Your task to perform on an android device: open wifi settings Image 0: 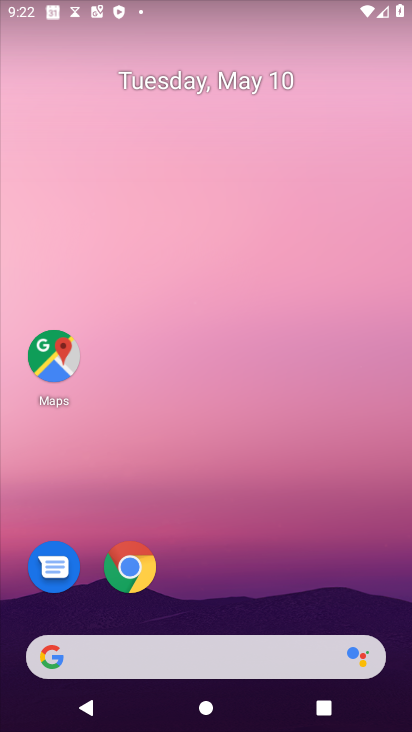
Step 0: press home button
Your task to perform on an android device: open wifi settings Image 1: 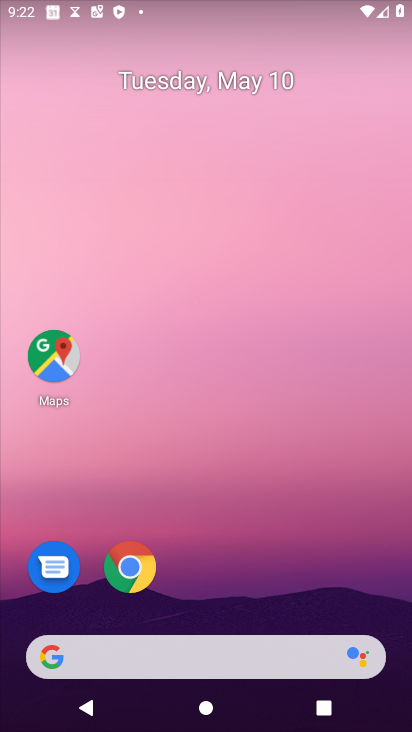
Step 1: drag from (15, 627) to (211, 100)
Your task to perform on an android device: open wifi settings Image 2: 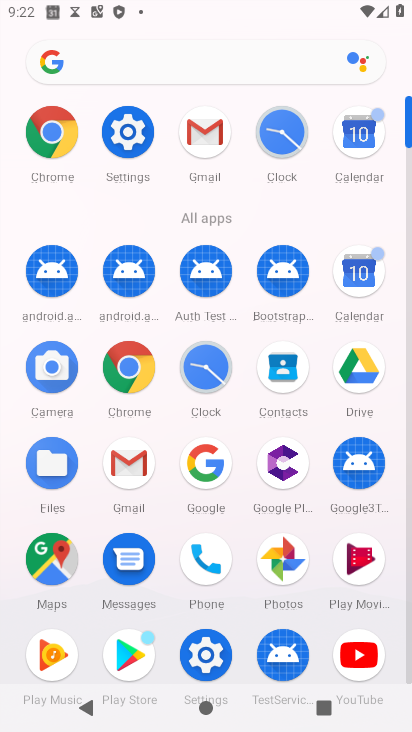
Step 2: click (132, 135)
Your task to perform on an android device: open wifi settings Image 3: 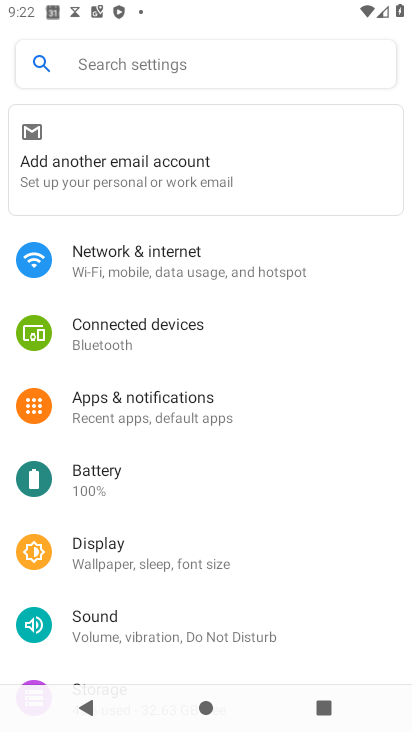
Step 3: click (117, 252)
Your task to perform on an android device: open wifi settings Image 4: 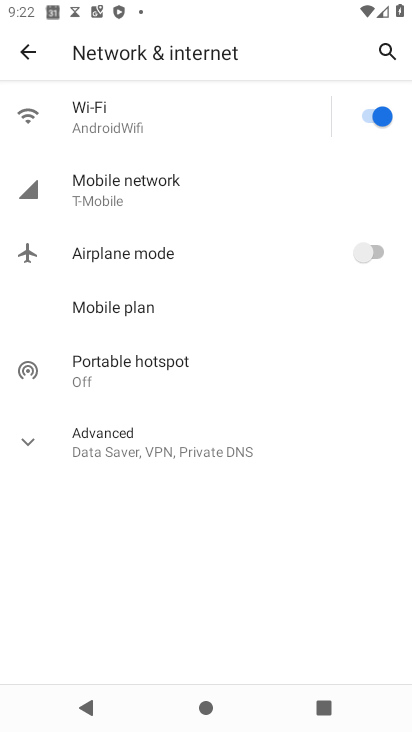
Step 4: click (192, 122)
Your task to perform on an android device: open wifi settings Image 5: 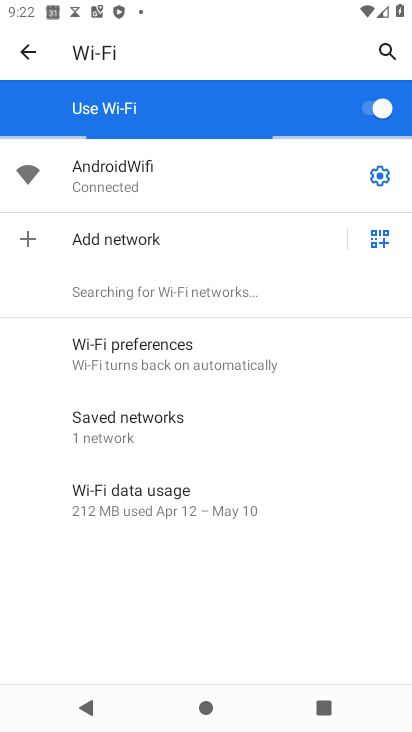
Step 5: click (386, 176)
Your task to perform on an android device: open wifi settings Image 6: 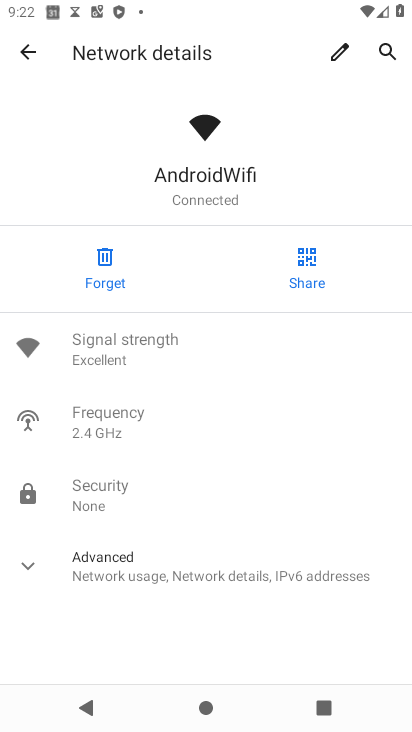
Step 6: task complete